Your task to perform on an android device: delete the emails in spam in the gmail app Image 0: 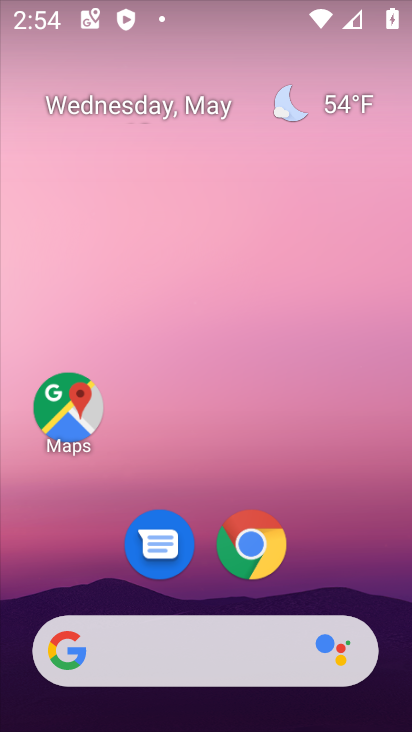
Step 0: drag from (345, 576) to (382, 50)
Your task to perform on an android device: delete the emails in spam in the gmail app Image 1: 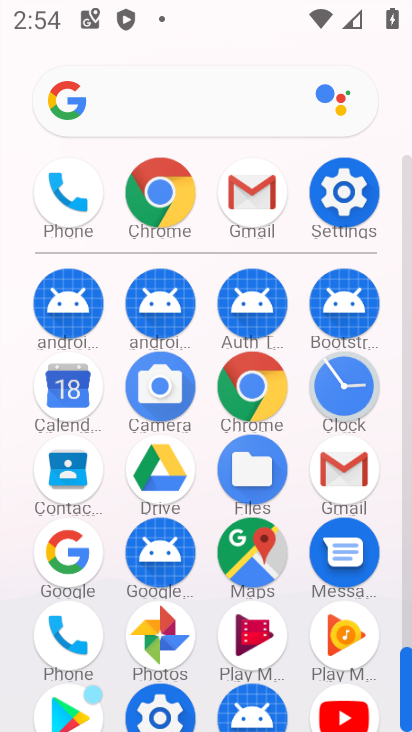
Step 1: click (276, 207)
Your task to perform on an android device: delete the emails in spam in the gmail app Image 2: 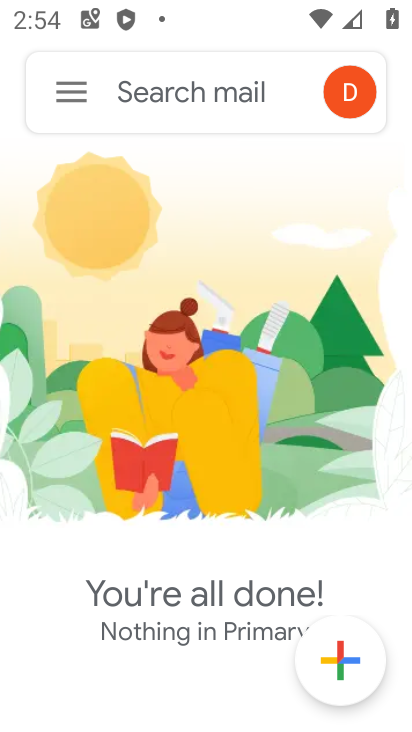
Step 2: click (77, 92)
Your task to perform on an android device: delete the emails in spam in the gmail app Image 3: 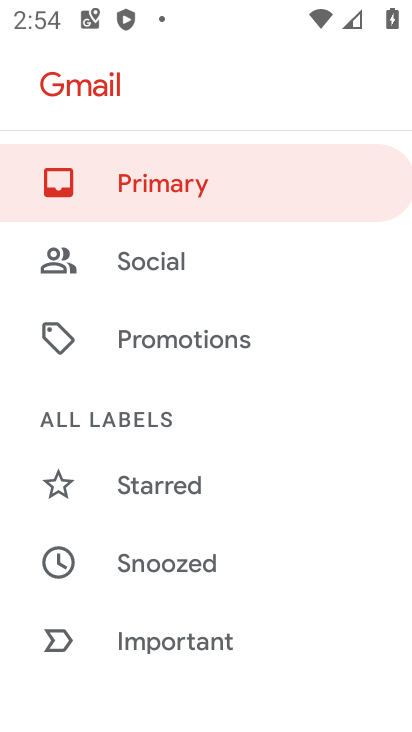
Step 3: drag from (130, 573) to (216, 194)
Your task to perform on an android device: delete the emails in spam in the gmail app Image 4: 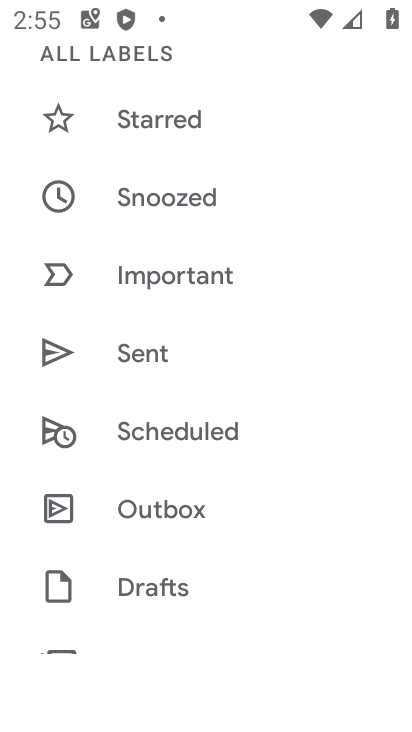
Step 4: drag from (204, 587) to (263, 286)
Your task to perform on an android device: delete the emails in spam in the gmail app Image 5: 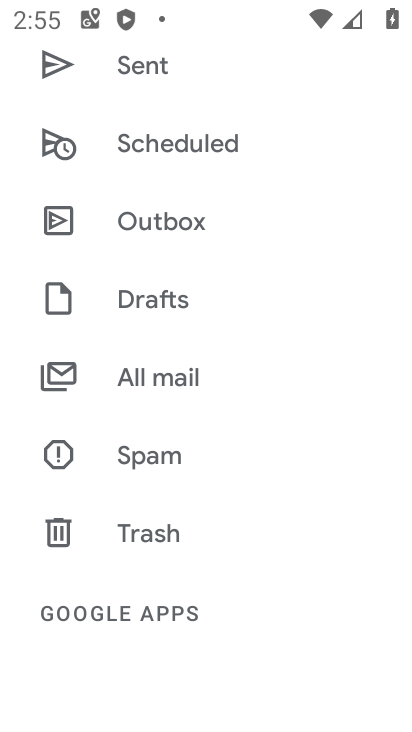
Step 5: click (206, 457)
Your task to perform on an android device: delete the emails in spam in the gmail app Image 6: 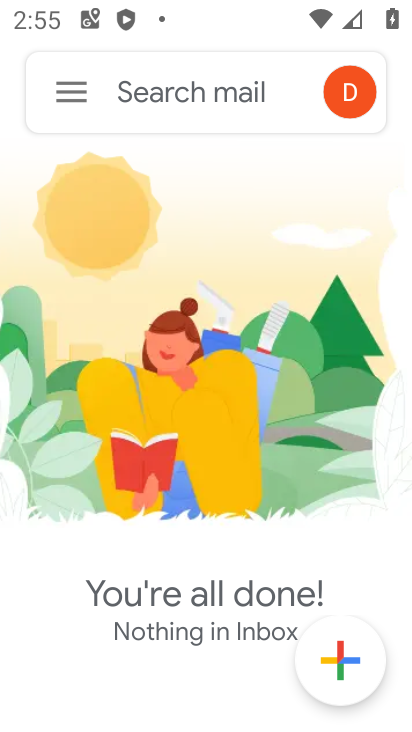
Step 6: task complete